Your task to perform on an android device: turn off improve location accuracy Image 0: 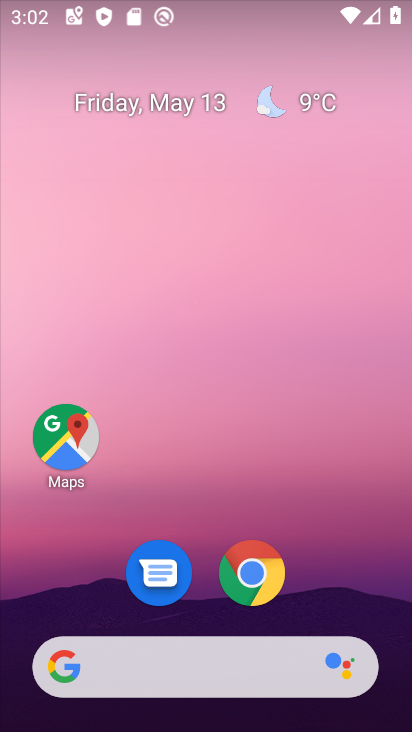
Step 0: drag from (202, 504) to (251, 187)
Your task to perform on an android device: turn off improve location accuracy Image 1: 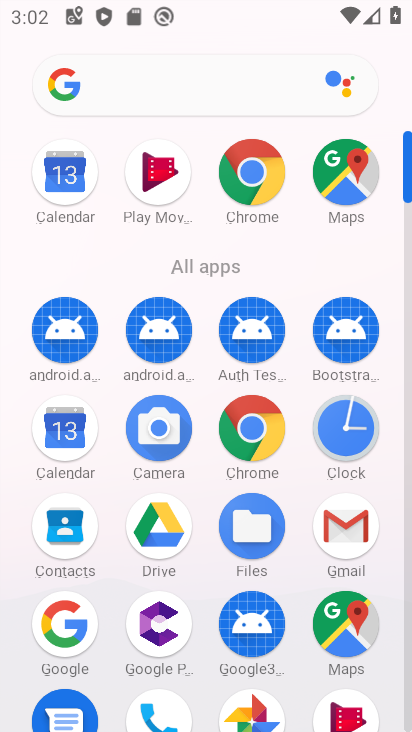
Step 1: drag from (194, 656) to (250, 265)
Your task to perform on an android device: turn off improve location accuracy Image 2: 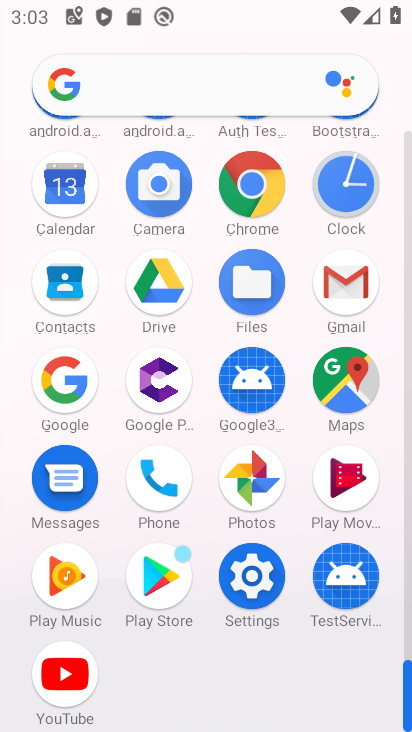
Step 2: click (257, 592)
Your task to perform on an android device: turn off improve location accuracy Image 3: 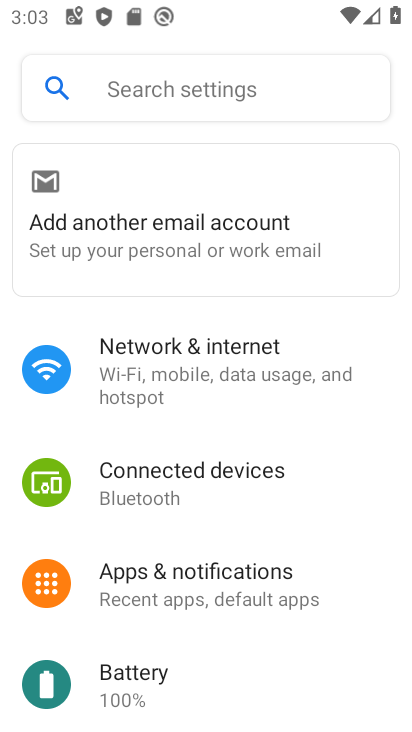
Step 3: drag from (147, 639) to (224, 180)
Your task to perform on an android device: turn off improve location accuracy Image 4: 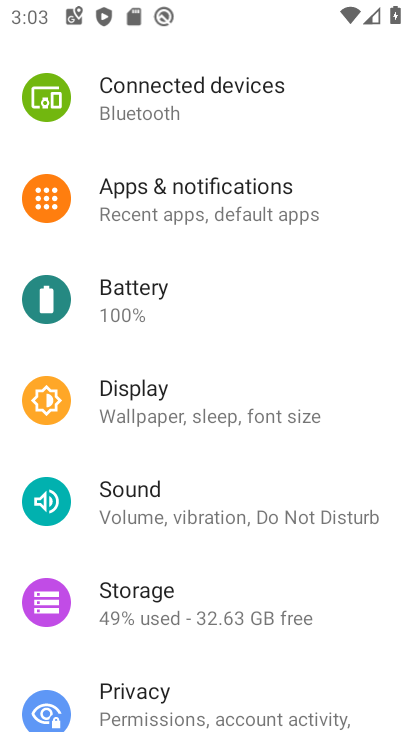
Step 4: drag from (174, 643) to (240, 243)
Your task to perform on an android device: turn off improve location accuracy Image 5: 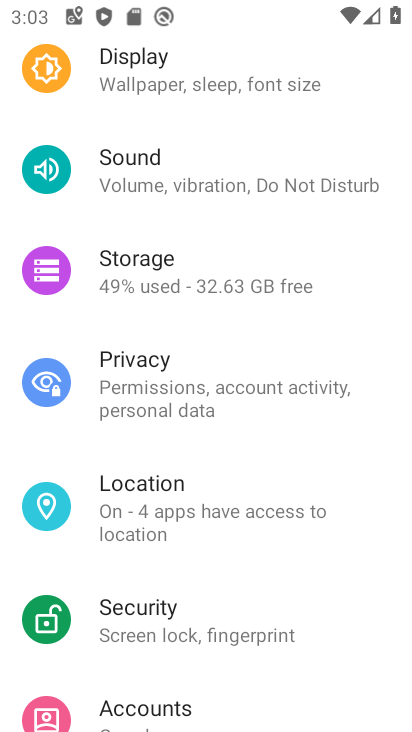
Step 5: click (180, 489)
Your task to perform on an android device: turn off improve location accuracy Image 6: 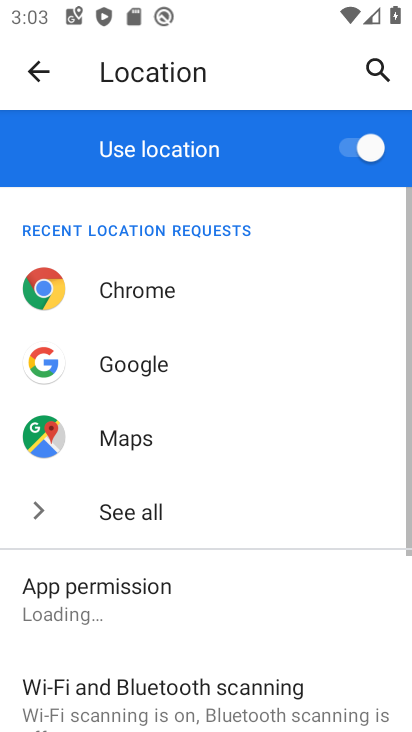
Step 6: click (100, 617)
Your task to perform on an android device: turn off improve location accuracy Image 7: 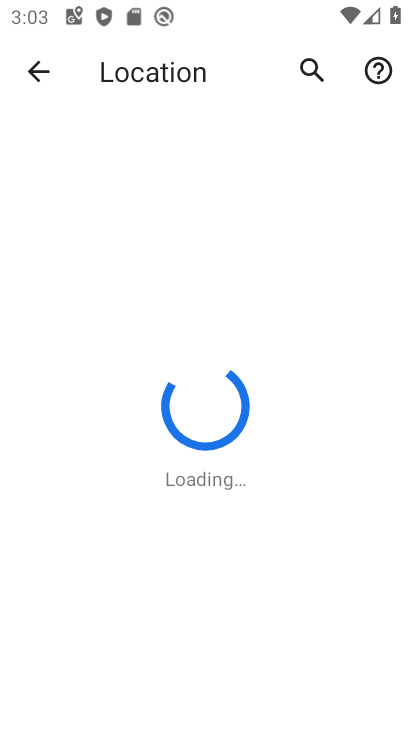
Step 7: click (38, 66)
Your task to perform on an android device: turn off improve location accuracy Image 8: 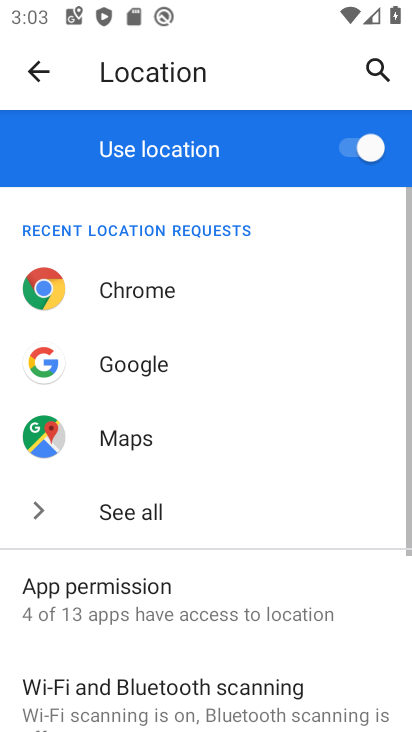
Step 8: drag from (106, 599) to (169, 119)
Your task to perform on an android device: turn off improve location accuracy Image 9: 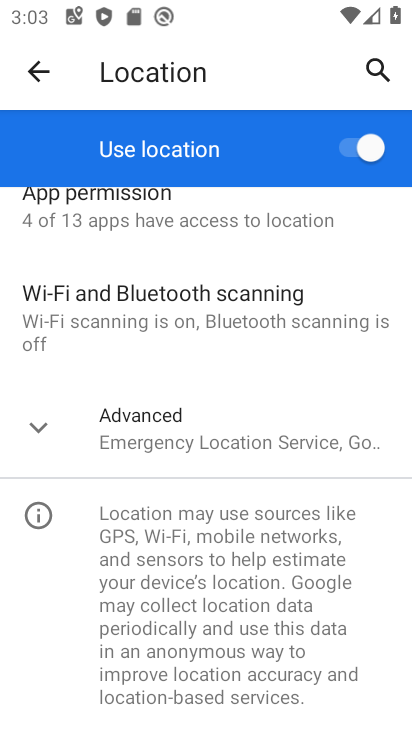
Step 9: click (159, 446)
Your task to perform on an android device: turn off improve location accuracy Image 10: 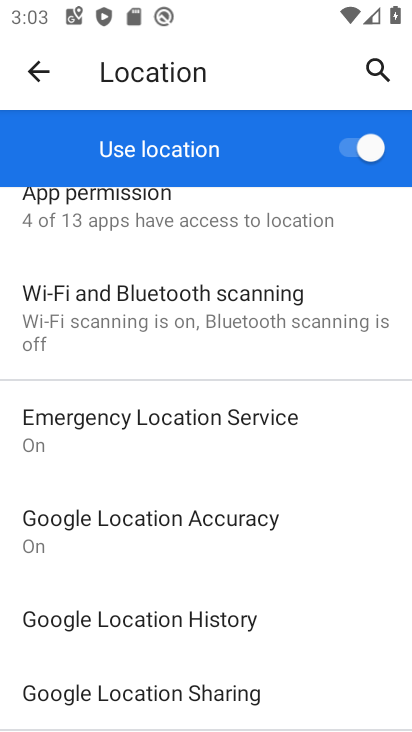
Step 10: click (133, 526)
Your task to perform on an android device: turn off improve location accuracy Image 11: 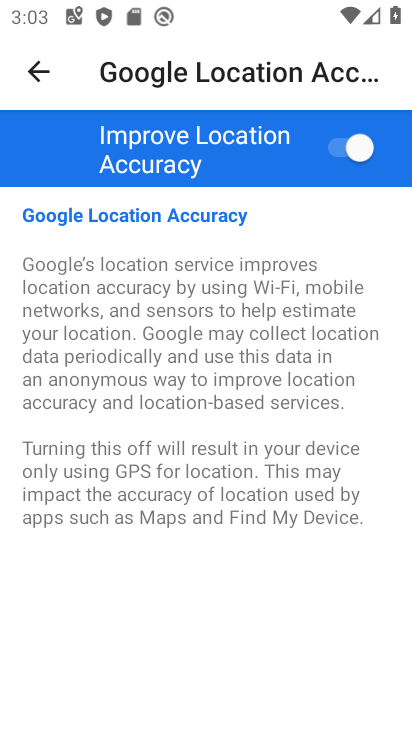
Step 11: click (352, 144)
Your task to perform on an android device: turn off improve location accuracy Image 12: 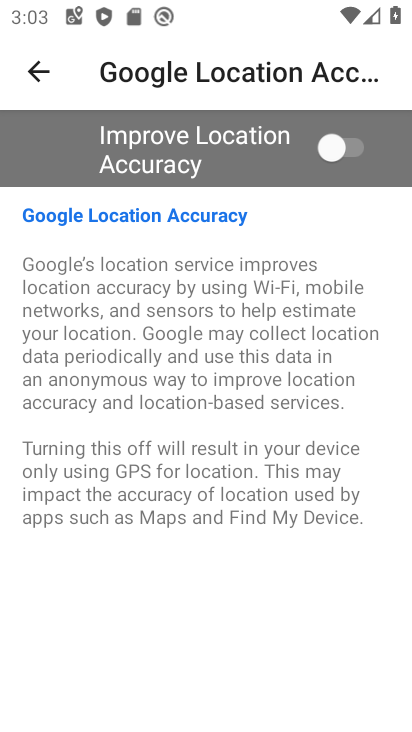
Step 12: task complete